Your task to perform on an android device: Open notification settings Image 0: 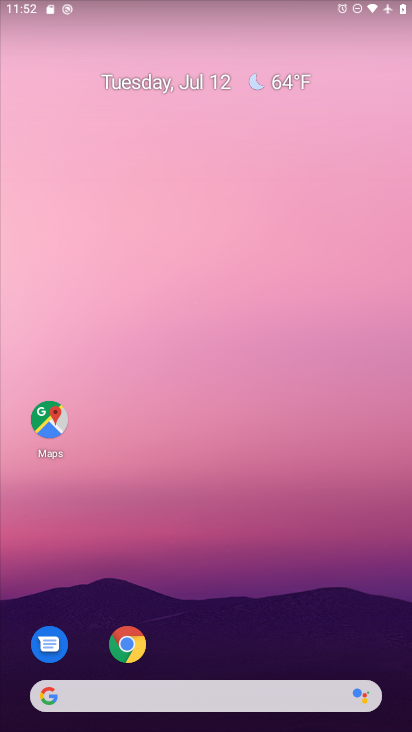
Step 0: drag from (300, 593) to (264, 156)
Your task to perform on an android device: Open notification settings Image 1: 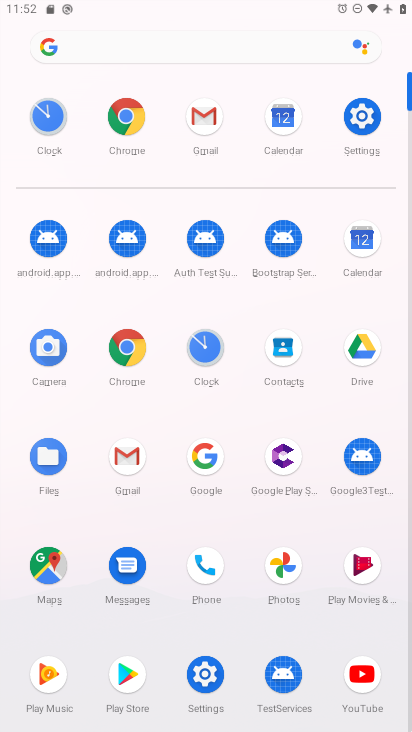
Step 1: click (364, 124)
Your task to perform on an android device: Open notification settings Image 2: 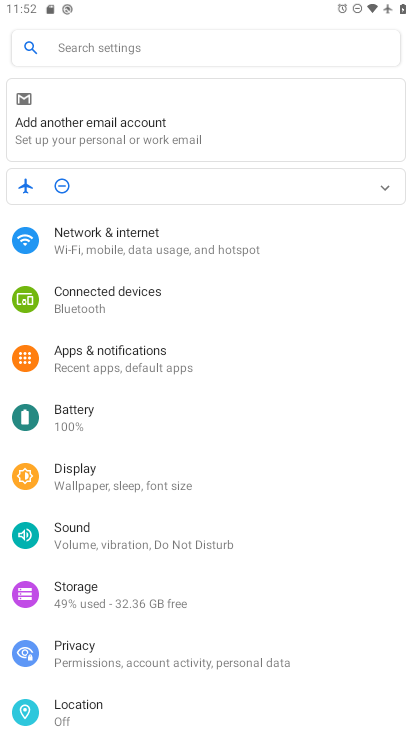
Step 2: click (162, 353)
Your task to perform on an android device: Open notification settings Image 3: 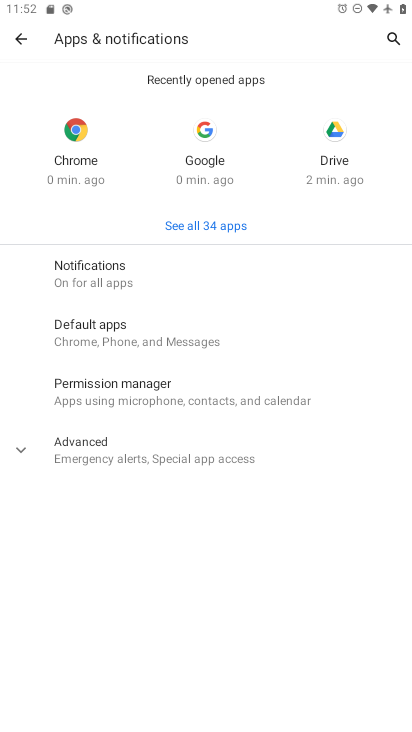
Step 3: task complete